Your task to perform on an android device: set an alarm Image 0: 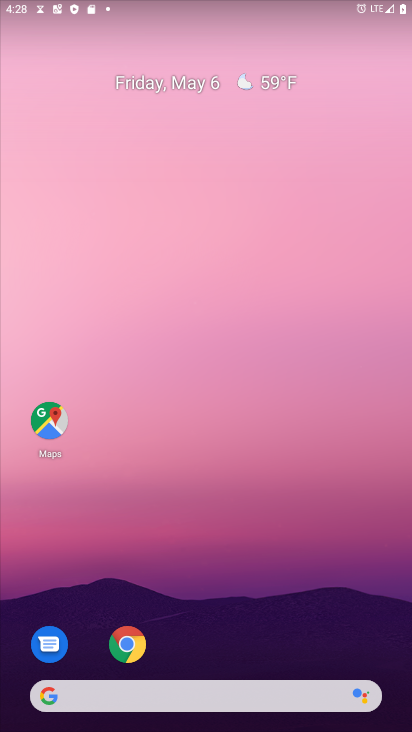
Step 0: drag from (219, 658) to (212, 210)
Your task to perform on an android device: set an alarm Image 1: 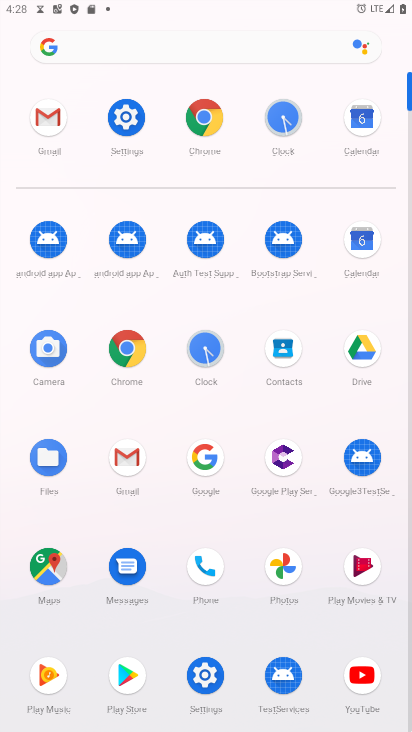
Step 1: click (200, 343)
Your task to perform on an android device: set an alarm Image 2: 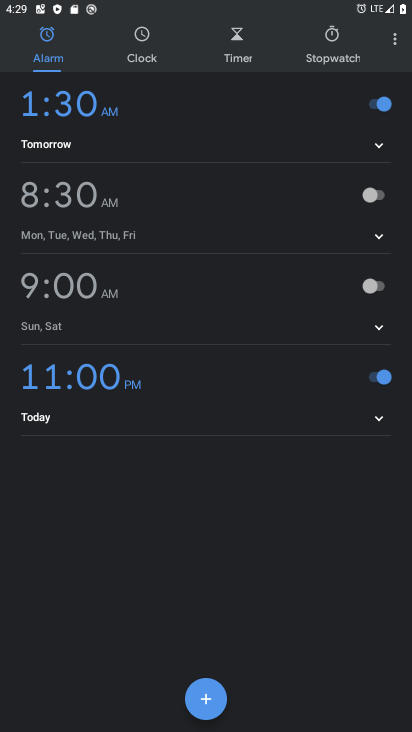
Step 2: click (205, 699)
Your task to perform on an android device: set an alarm Image 3: 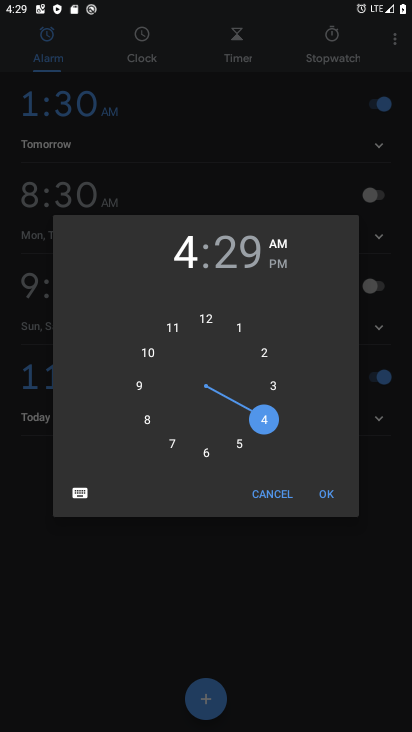
Step 3: click (239, 331)
Your task to perform on an android device: set an alarm Image 4: 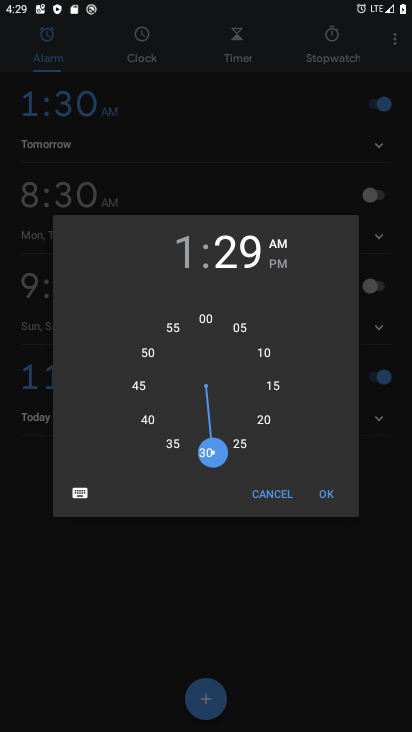
Step 4: click (332, 489)
Your task to perform on an android device: set an alarm Image 5: 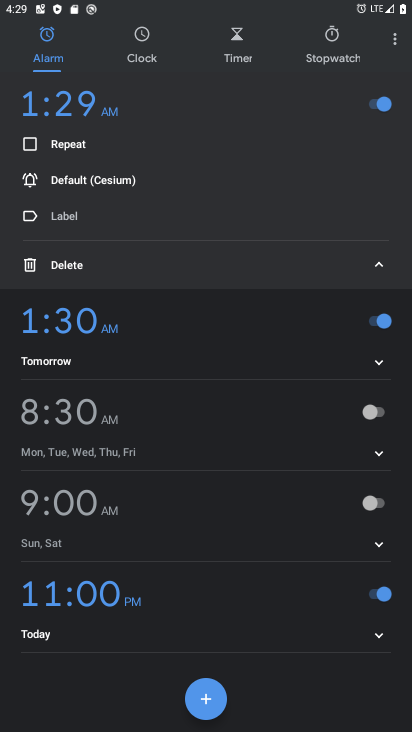
Step 5: click (381, 267)
Your task to perform on an android device: set an alarm Image 6: 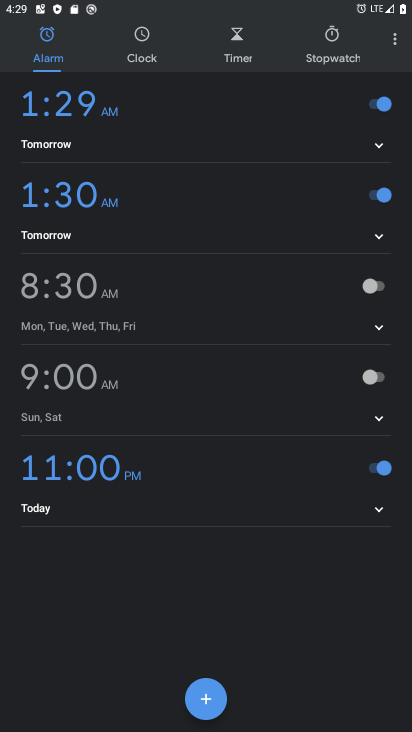
Step 6: task complete